Your task to perform on an android device: turn off wifi Image 0: 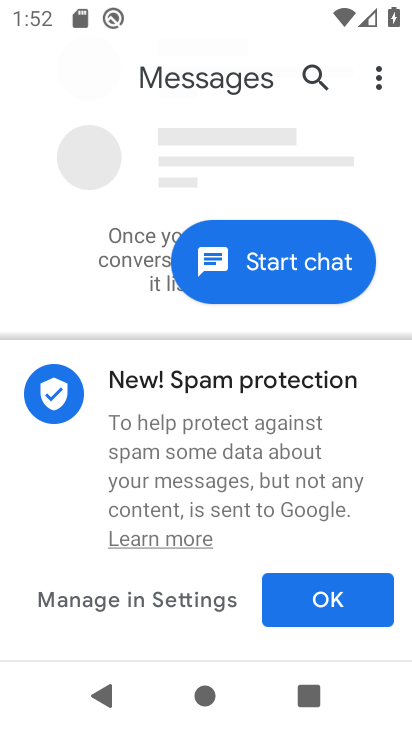
Step 0: press home button
Your task to perform on an android device: turn off wifi Image 1: 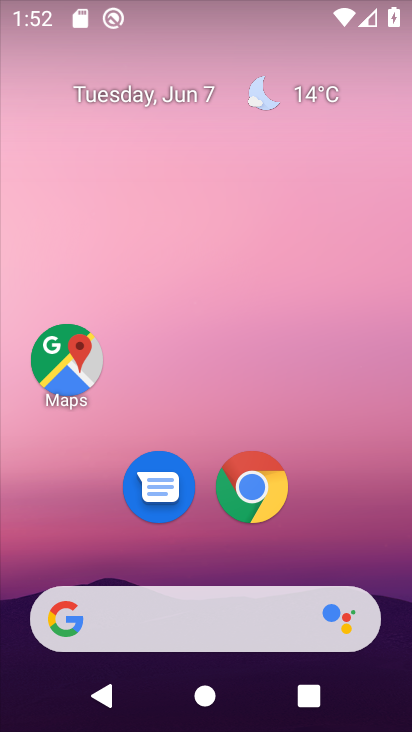
Step 1: drag from (212, 556) to (330, 18)
Your task to perform on an android device: turn off wifi Image 2: 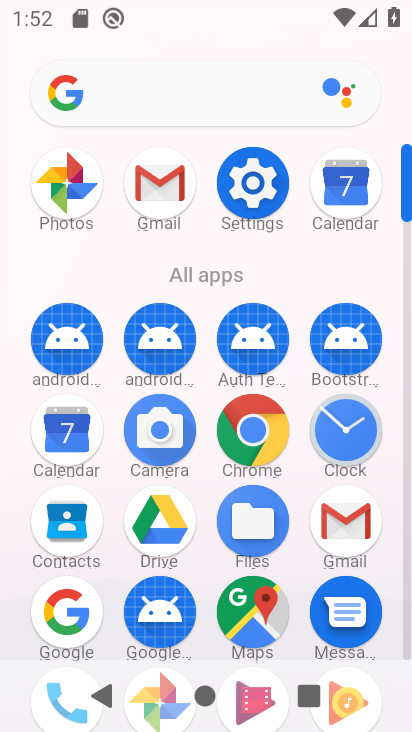
Step 2: click (259, 180)
Your task to perform on an android device: turn off wifi Image 3: 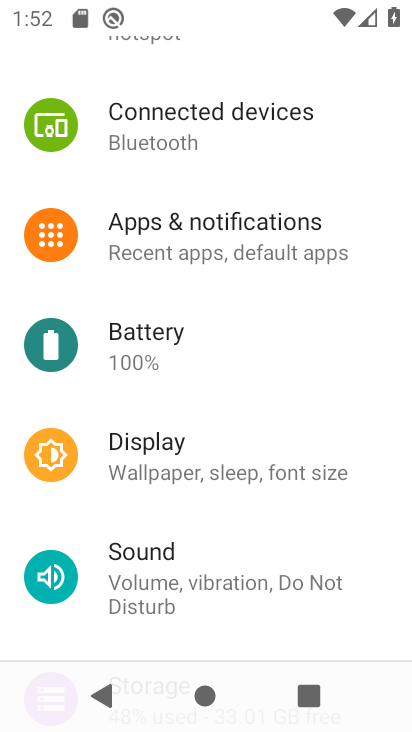
Step 3: drag from (149, 124) to (150, 439)
Your task to perform on an android device: turn off wifi Image 4: 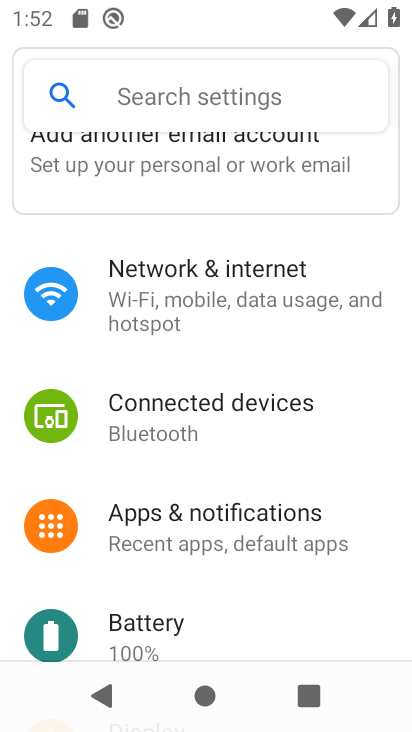
Step 4: click (171, 309)
Your task to perform on an android device: turn off wifi Image 5: 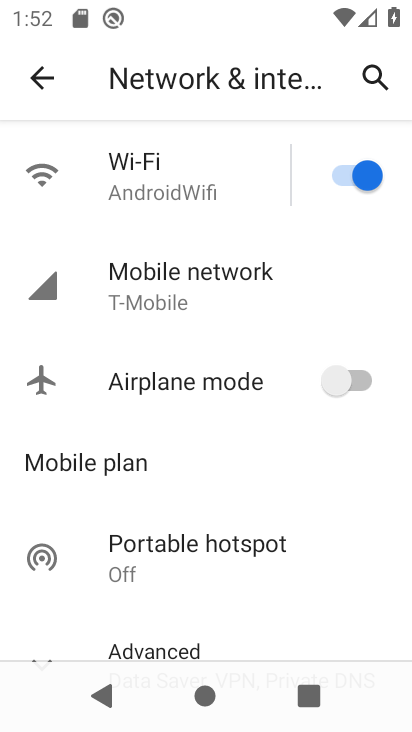
Step 5: click (353, 173)
Your task to perform on an android device: turn off wifi Image 6: 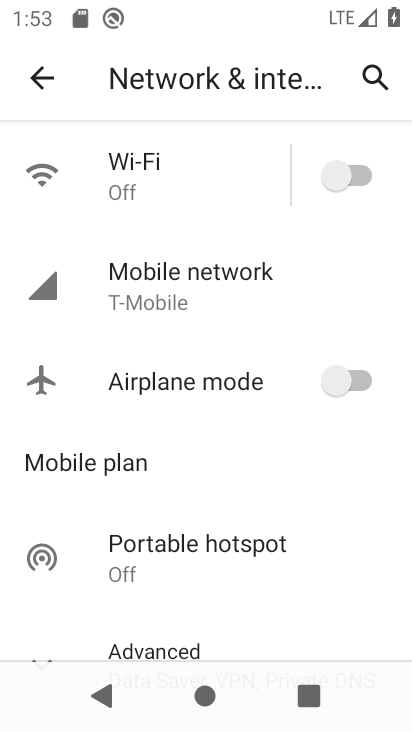
Step 6: task complete